Your task to perform on an android device: Search for "razer huntsman" on ebay, select the first entry, add it to the cart, then select checkout. Image 0: 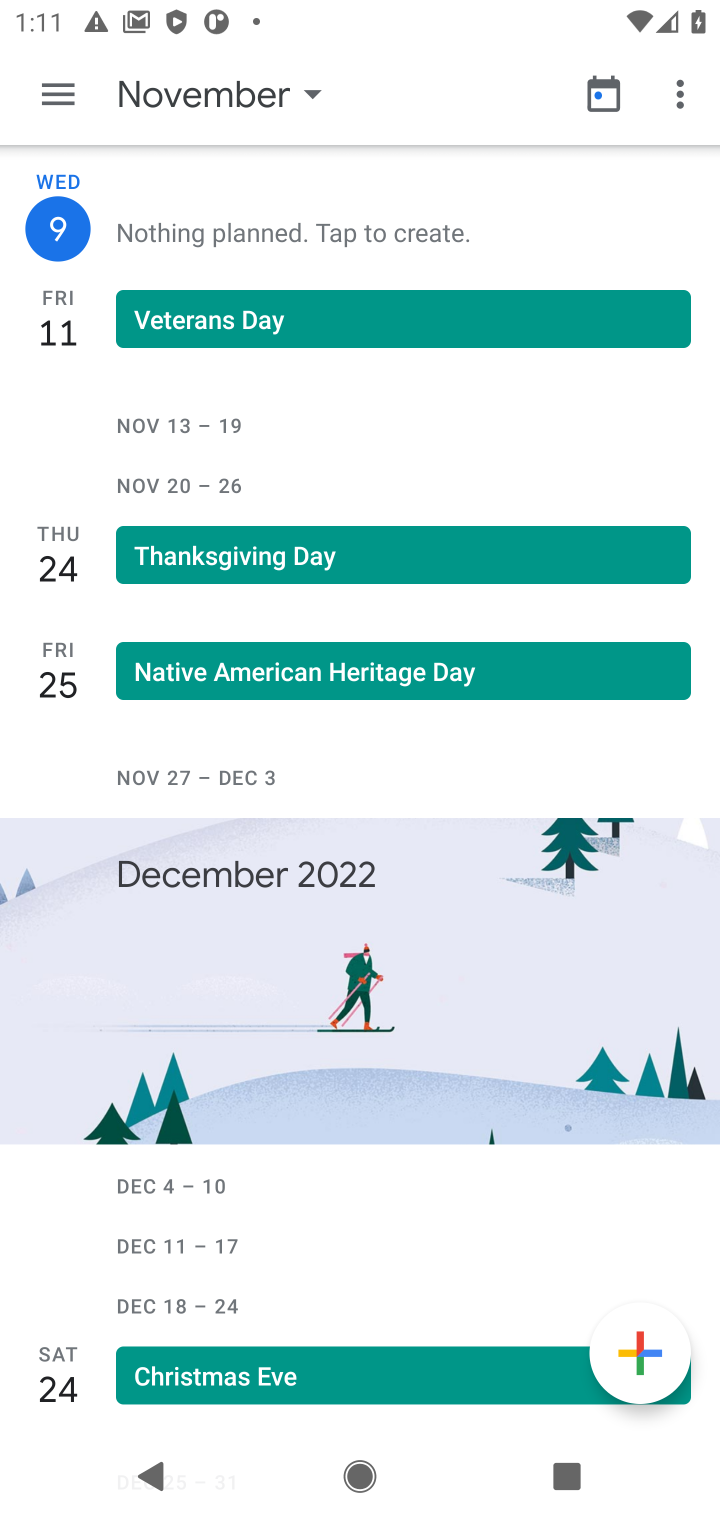
Step 0: press home button
Your task to perform on an android device: Search for "razer huntsman" on ebay, select the first entry, add it to the cart, then select checkout. Image 1: 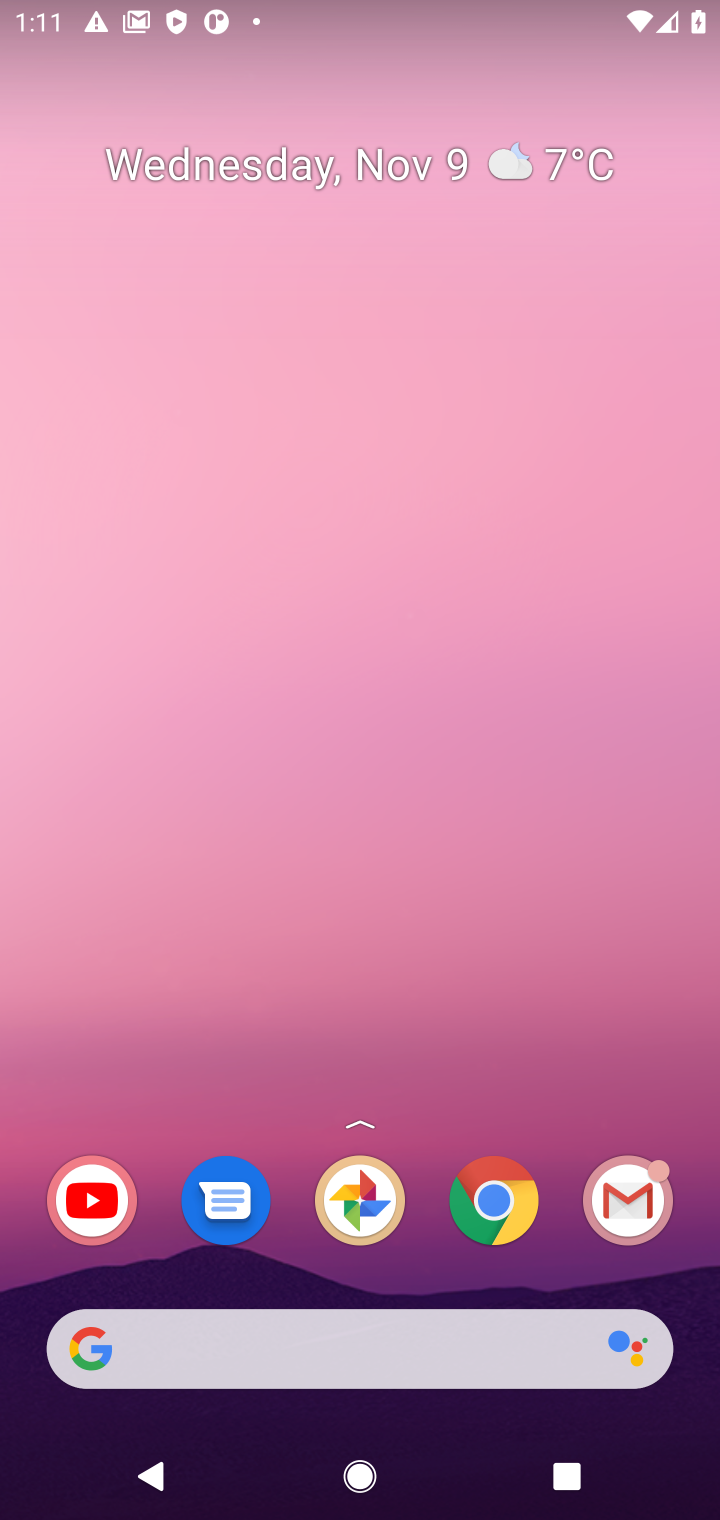
Step 1: click (210, 1383)
Your task to perform on an android device: Search for "razer huntsman" on ebay, select the first entry, add it to the cart, then select checkout. Image 2: 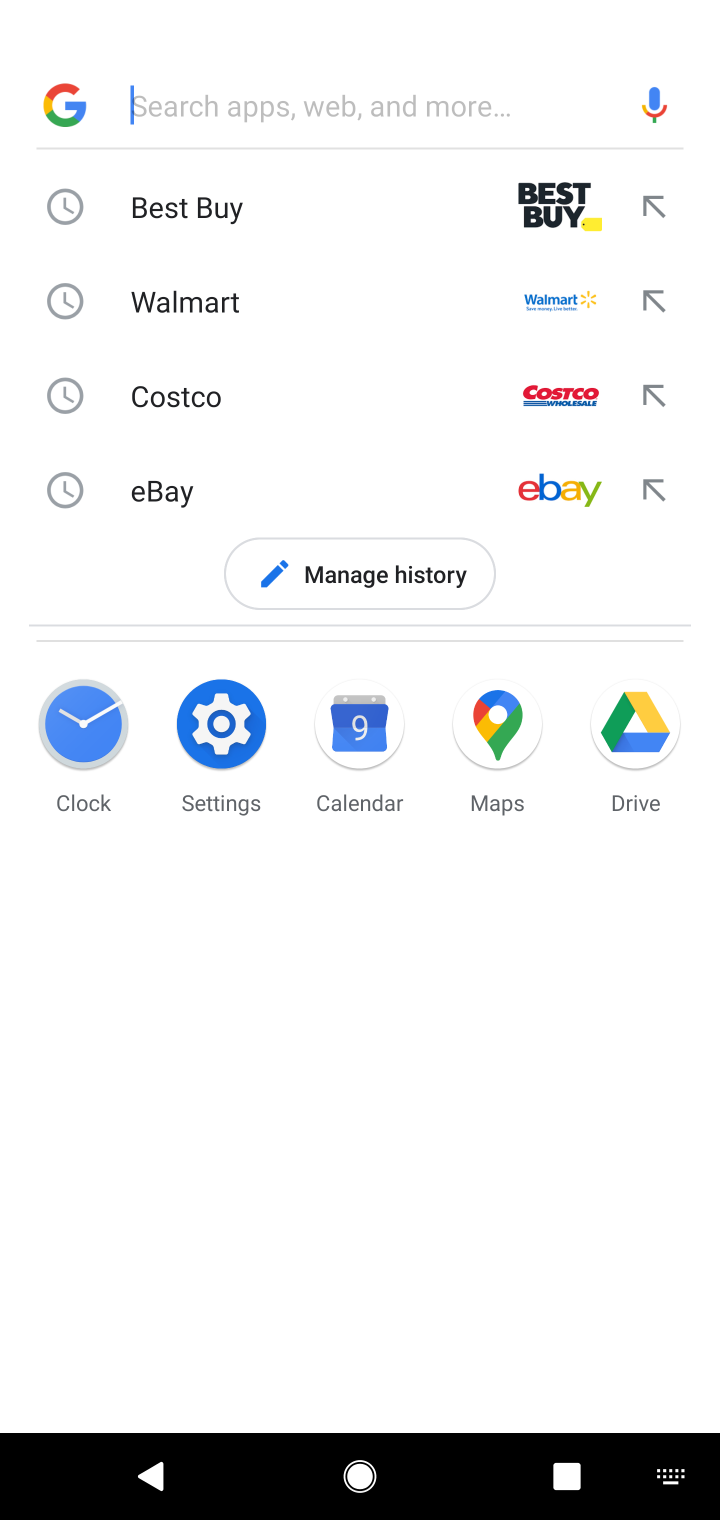
Step 2: type "razer"
Your task to perform on an android device: Search for "razer huntsman" on ebay, select the first entry, add it to the cart, then select checkout. Image 3: 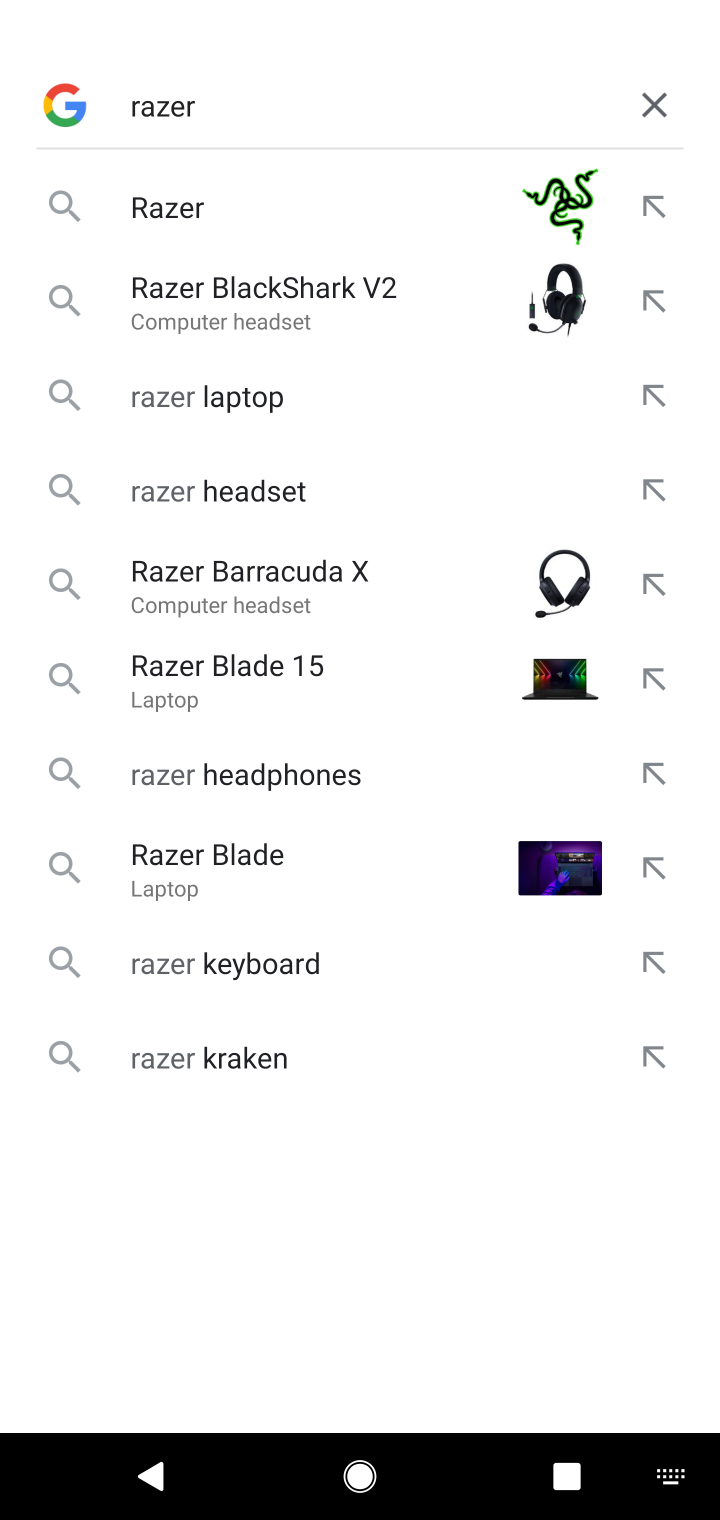
Step 3: click (243, 187)
Your task to perform on an android device: Search for "razer huntsman" on ebay, select the first entry, add it to the cart, then select checkout. Image 4: 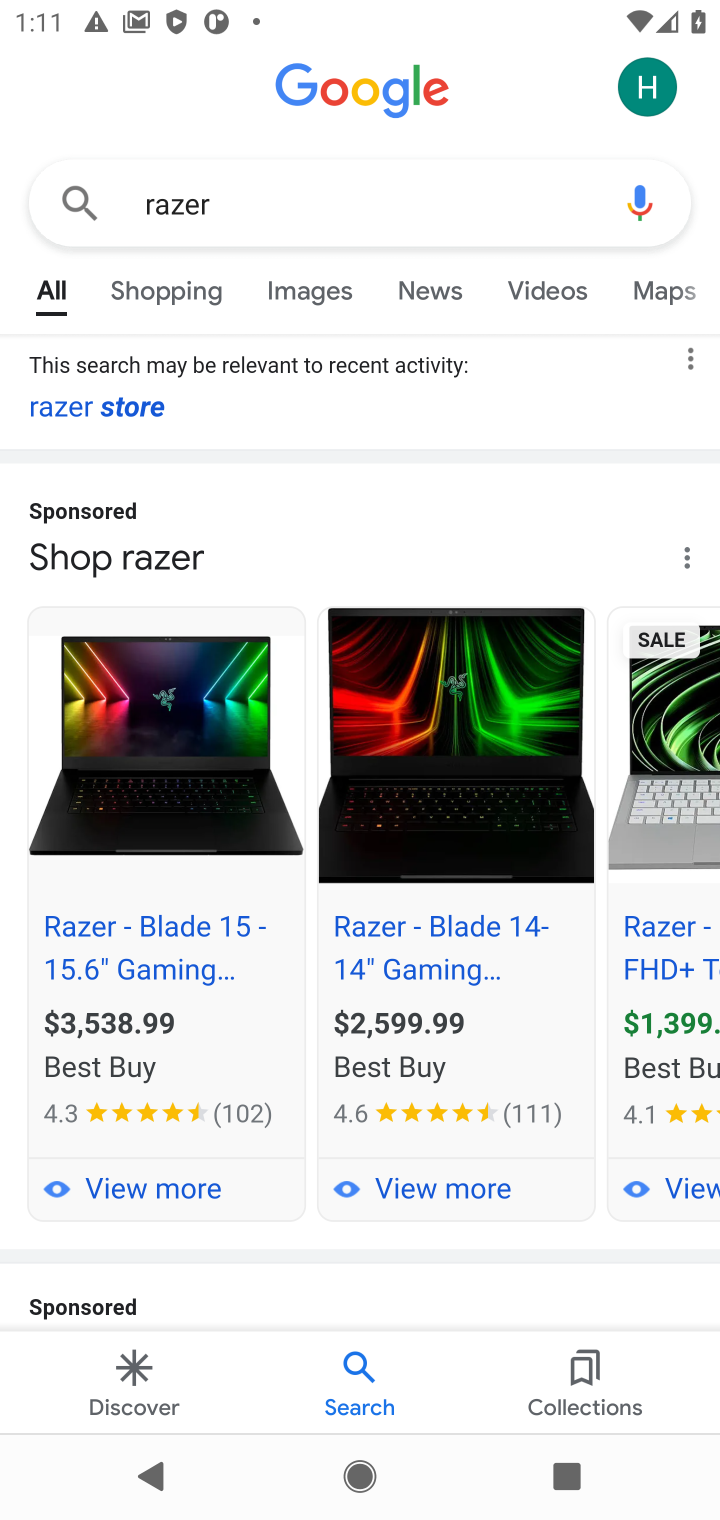
Step 4: task complete